Your task to perform on an android device: Search for Italian restaurants on Maps Image 0: 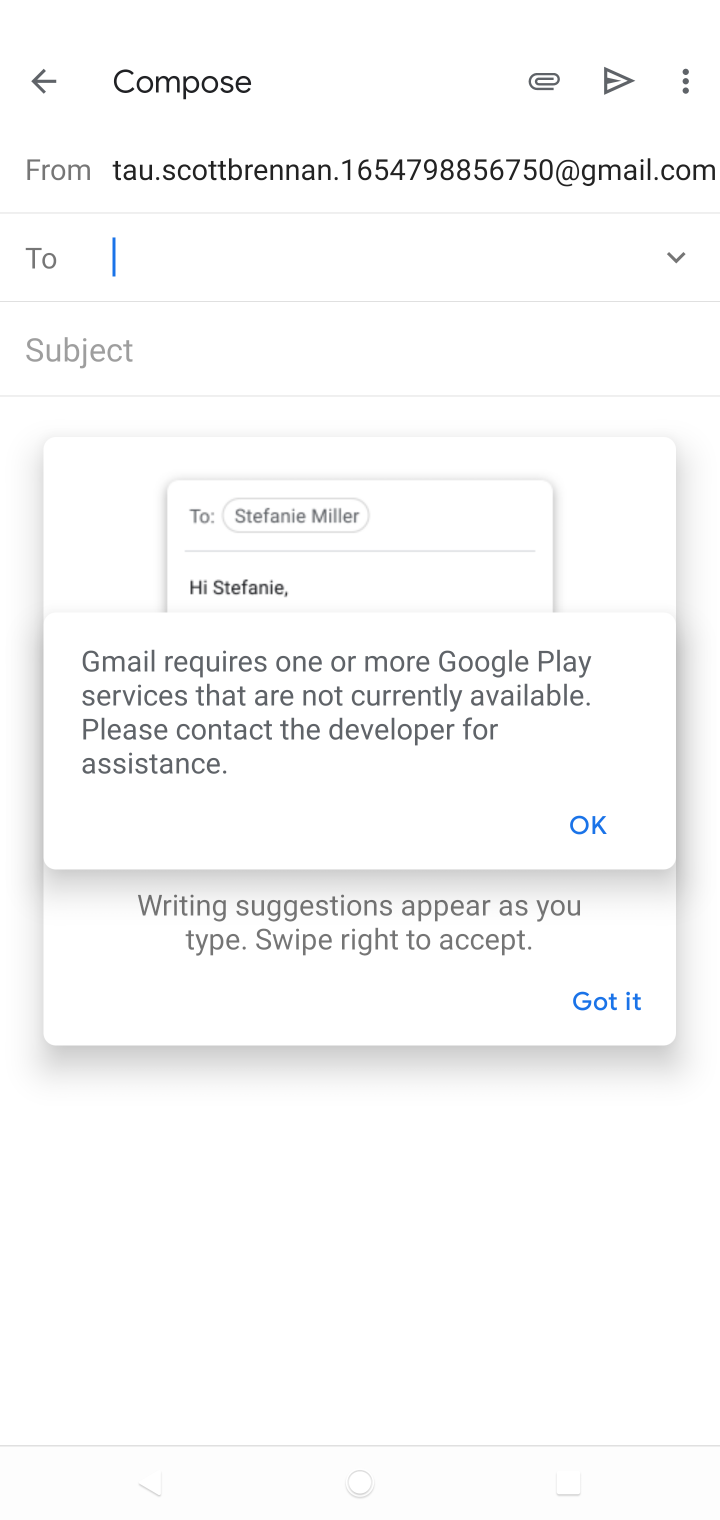
Step 0: press home button
Your task to perform on an android device: Search for Italian restaurants on Maps Image 1: 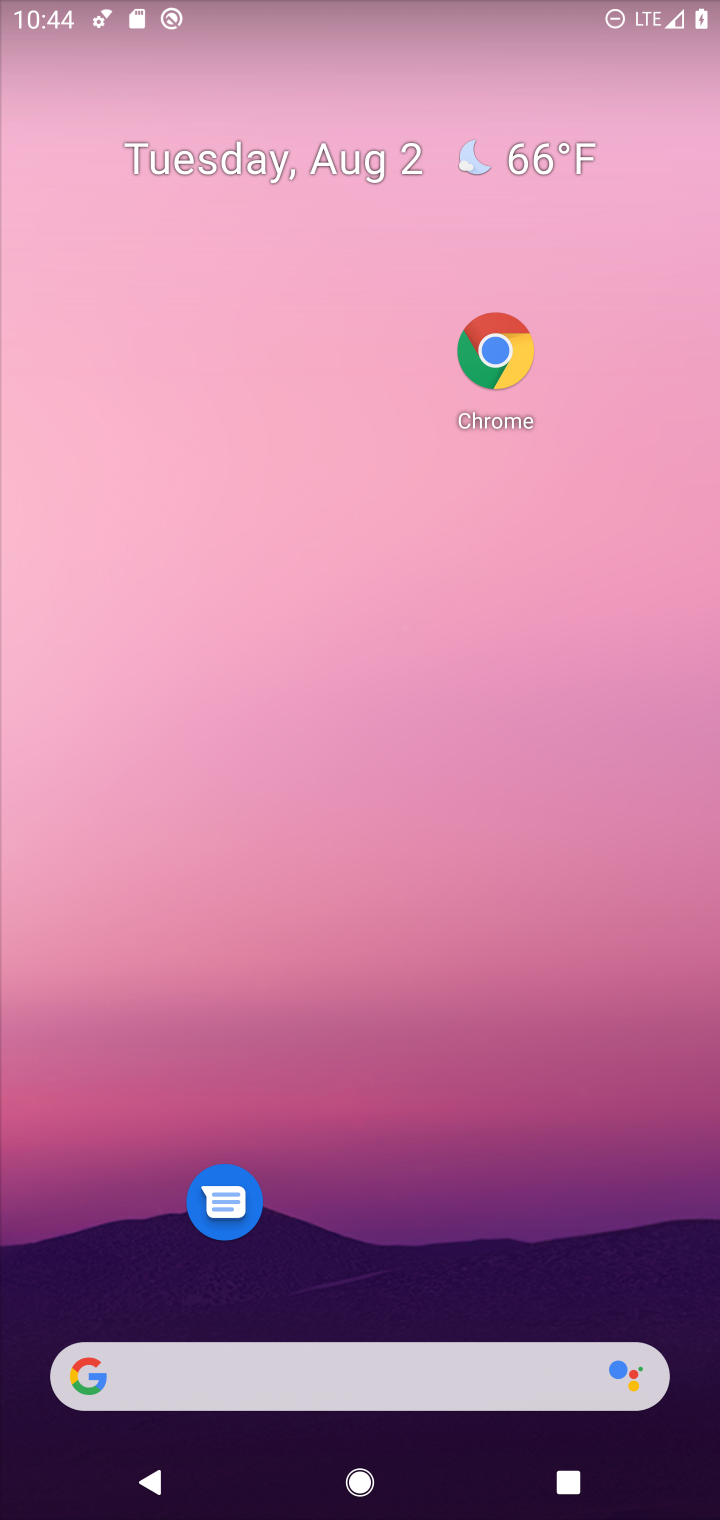
Step 1: drag from (438, 1277) to (323, 55)
Your task to perform on an android device: Search for Italian restaurants on Maps Image 2: 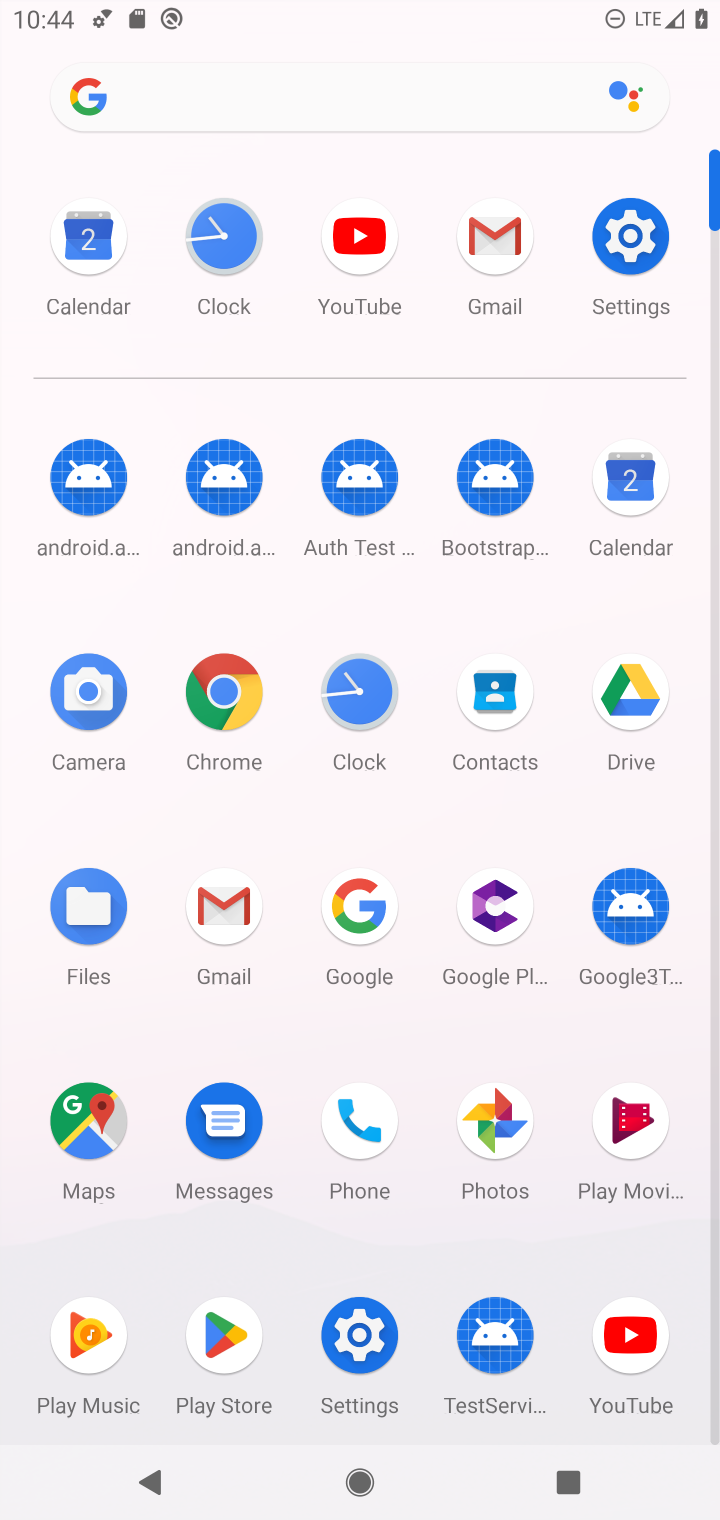
Step 2: click (90, 1126)
Your task to perform on an android device: Search for Italian restaurants on Maps Image 3: 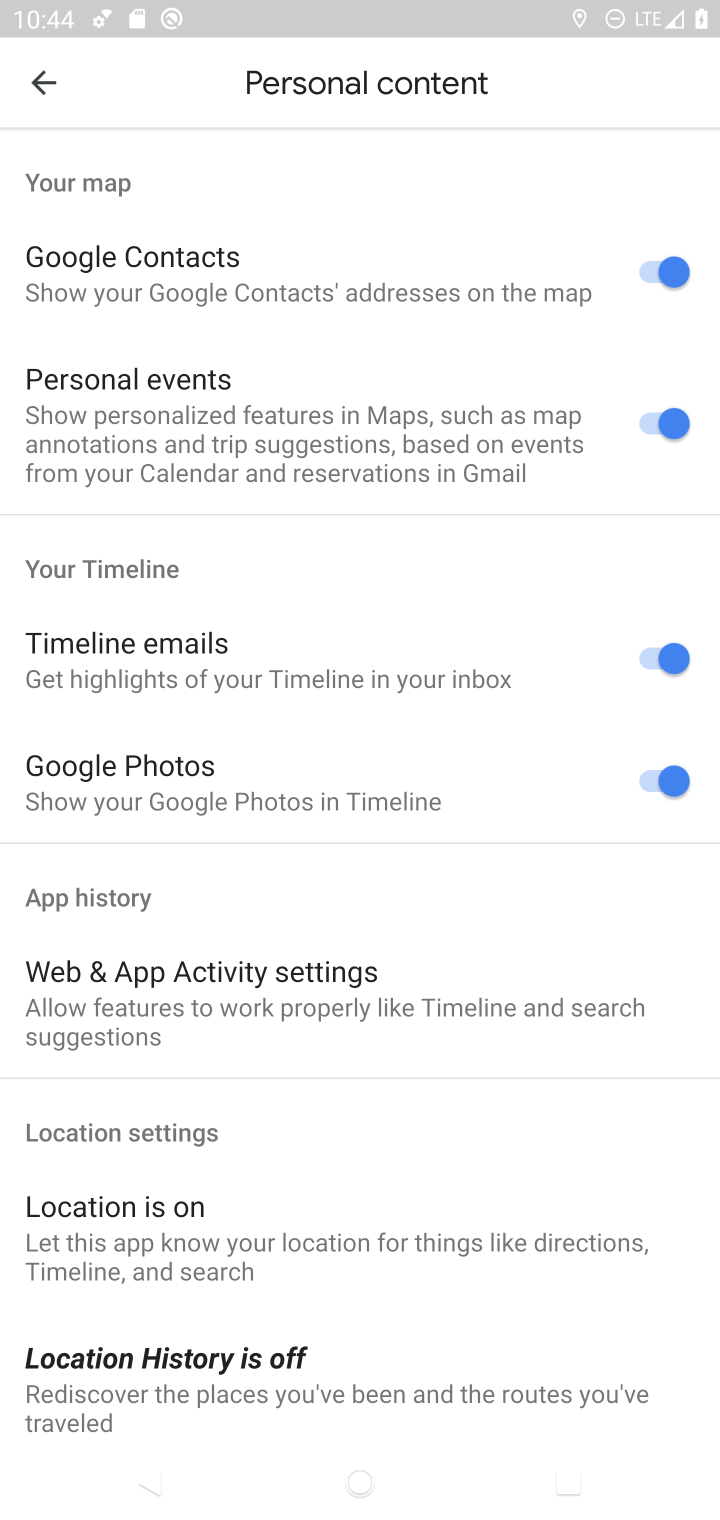
Step 3: click (46, 83)
Your task to perform on an android device: Search for Italian restaurants on Maps Image 4: 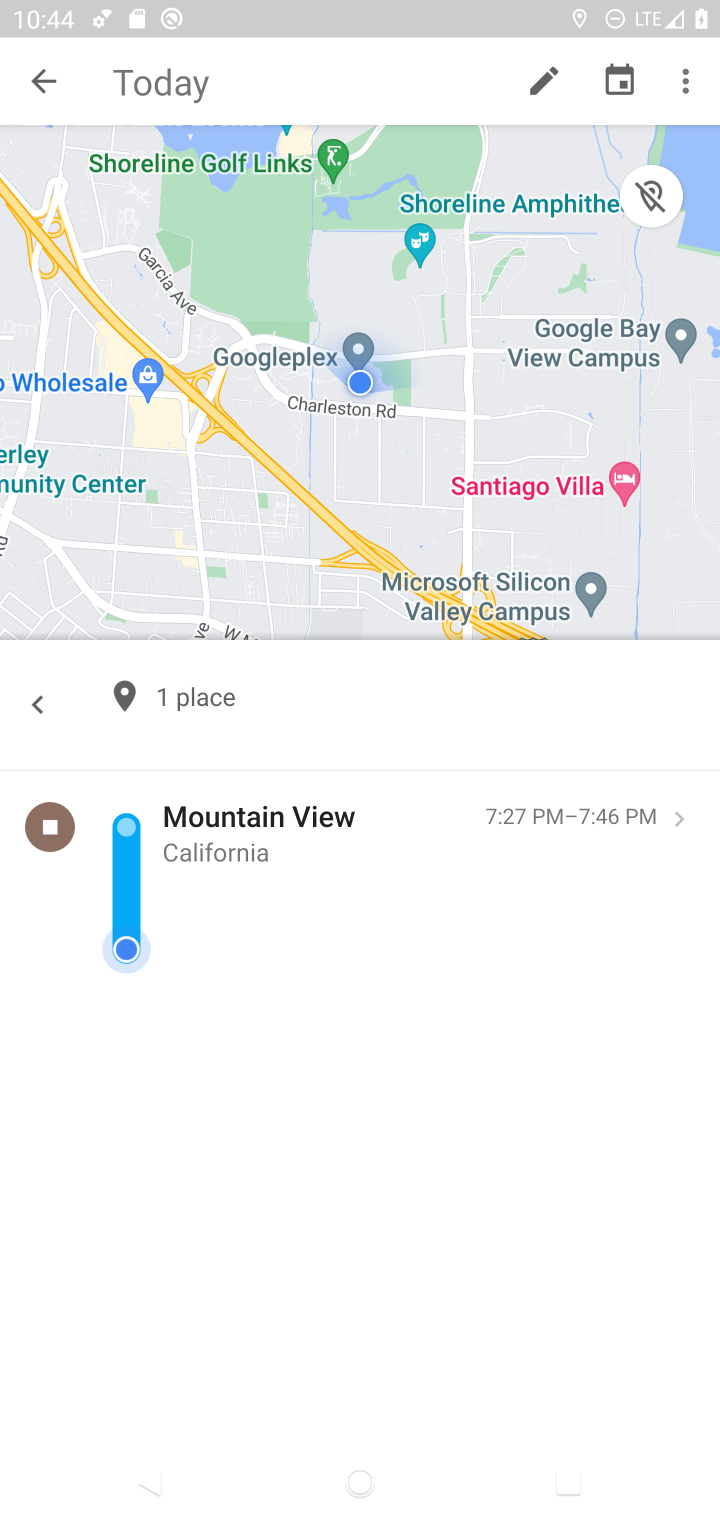
Step 4: click (46, 83)
Your task to perform on an android device: Search for Italian restaurants on Maps Image 5: 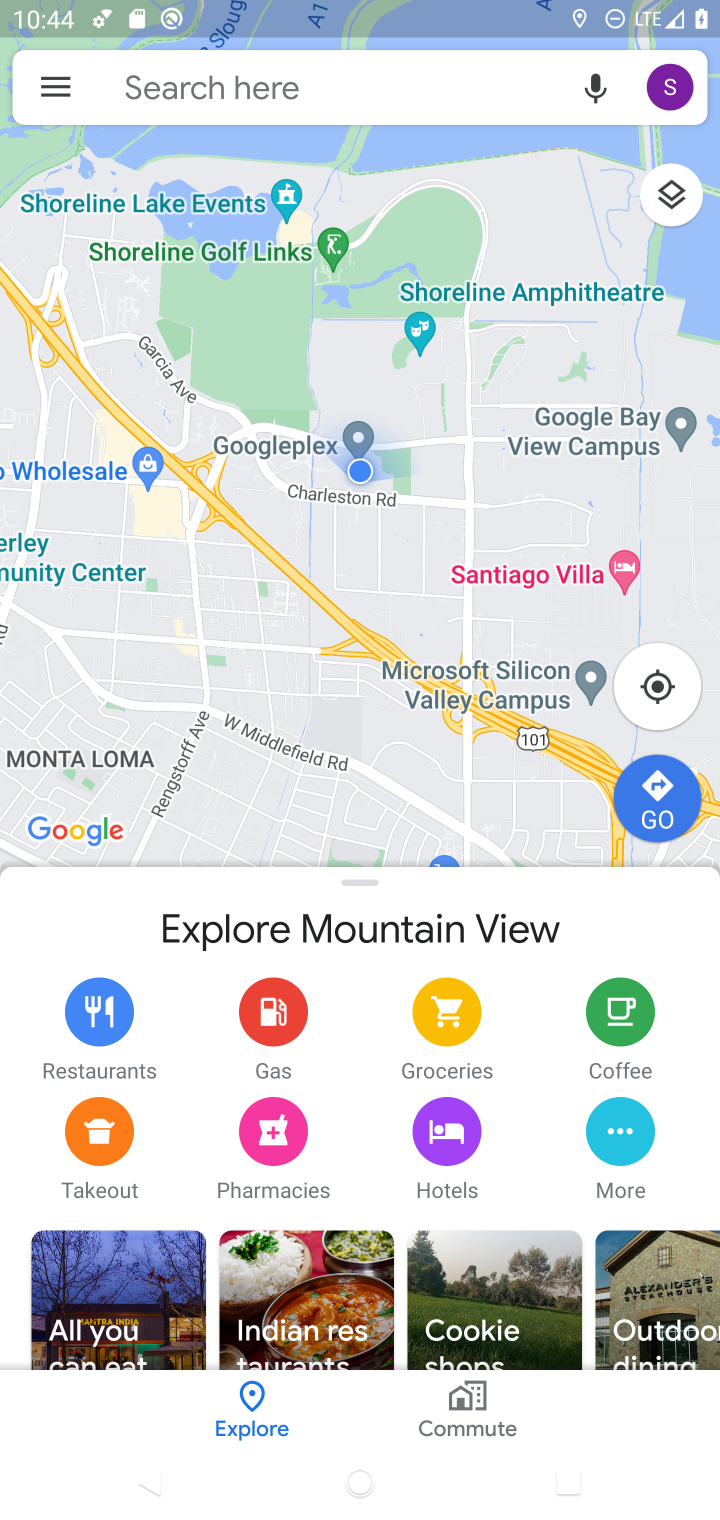
Step 5: click (149, 74)
Your task to perform on an android device: Search for Italian restaurants on Maps Image 6: 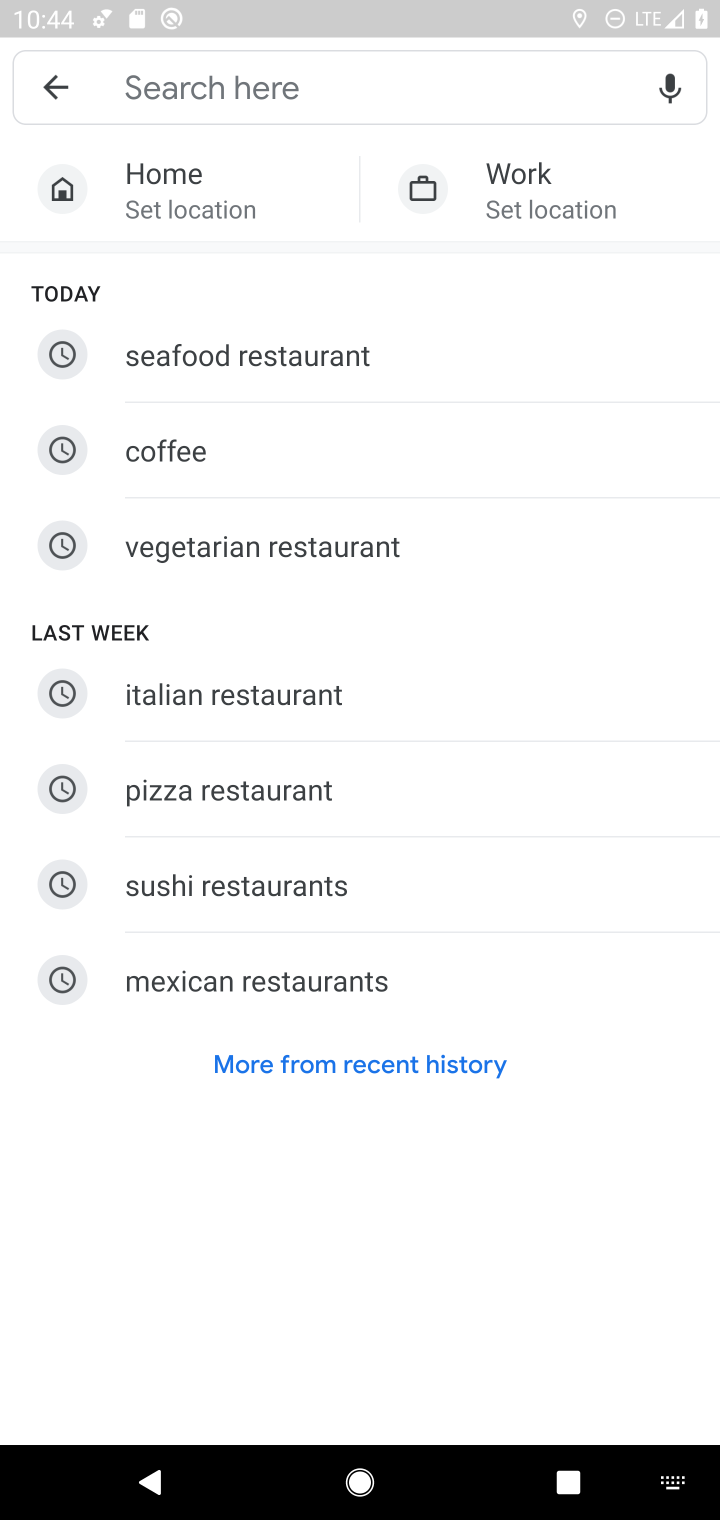
Step 6: type " Italian restaurants "
Your task to perform on an android device: Search for Italian restaurants on Maps Image 7: 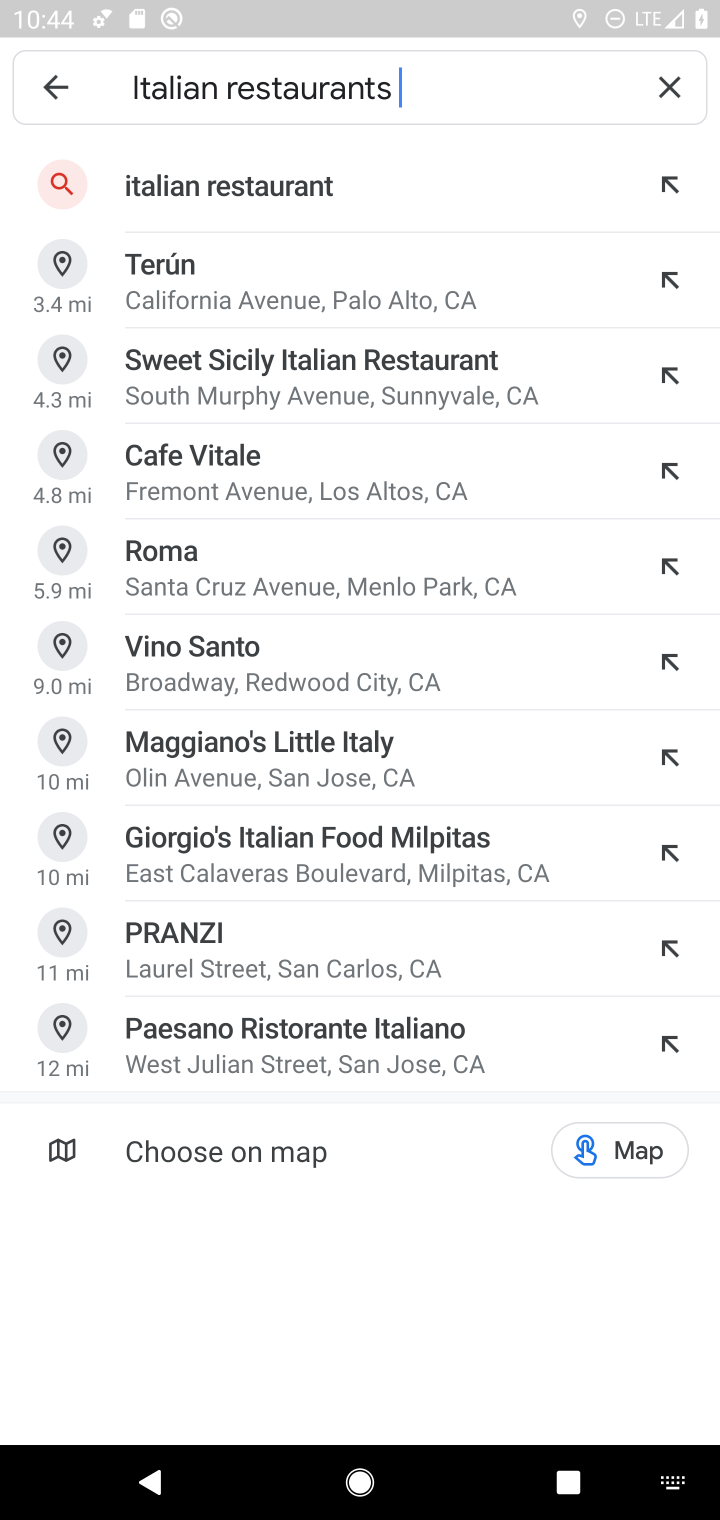
Step 7: click (174, 195)
Your task to perform on an android device: Search for Italian restaurants on Maps Image 8: 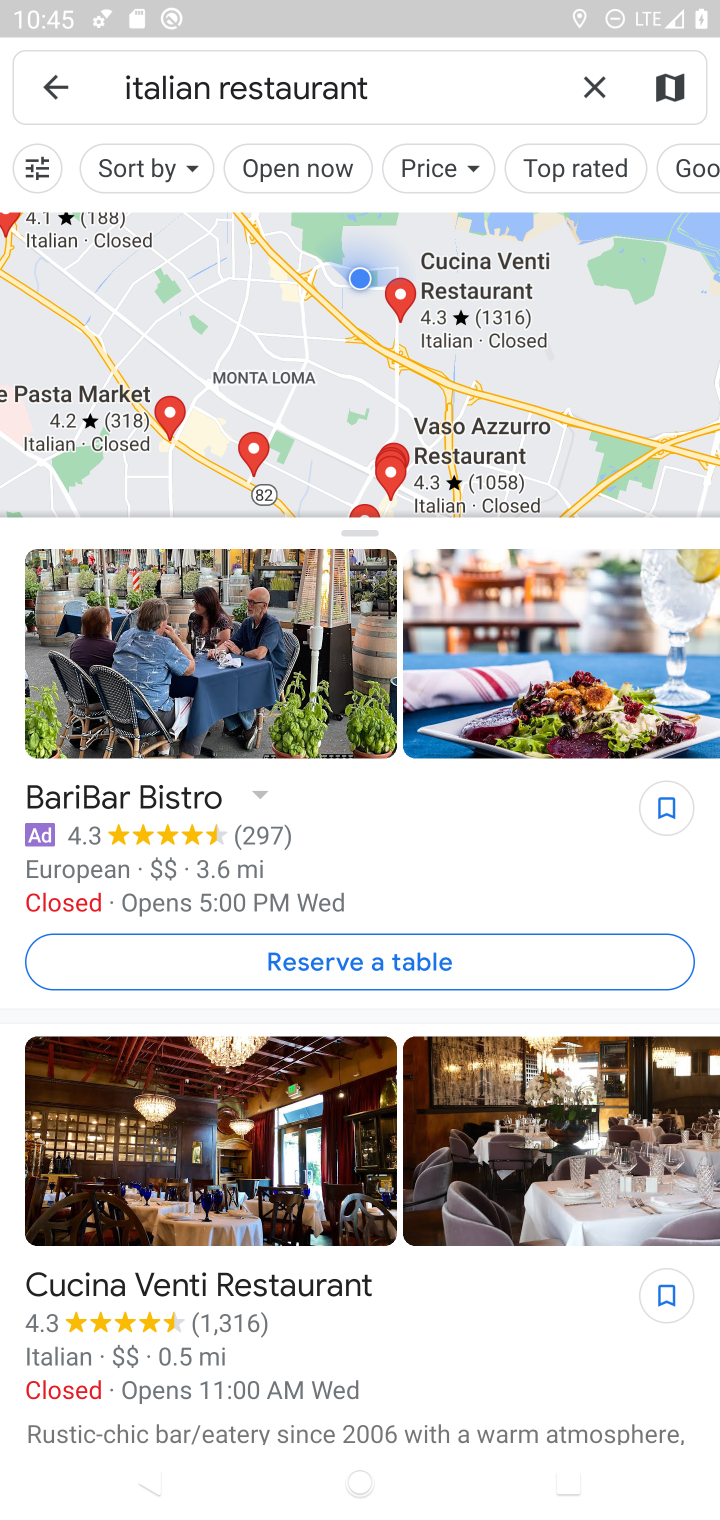
Step 8: task complete